Your task to perform on an android device: Clear the cart on newegg. Add logitech g pro to the cart on newegg, then select checkout. Image 0: 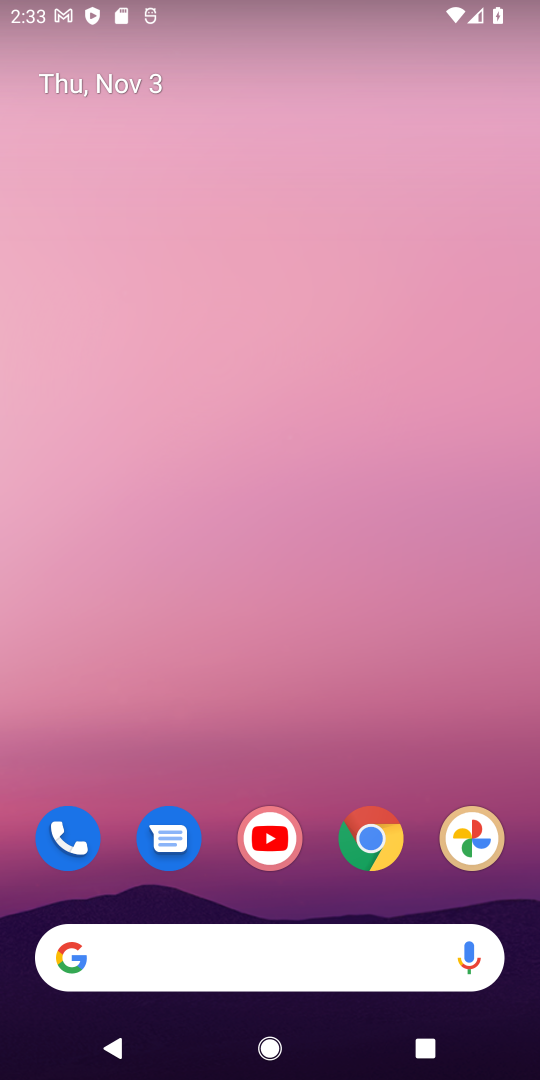
Step 0: drag from (300, 915) to (319, 237)
Your task to perform on an android device: Clear the cart on newegg. Add logitech g pro to the cart on newegg, then select checkout. Image 1: 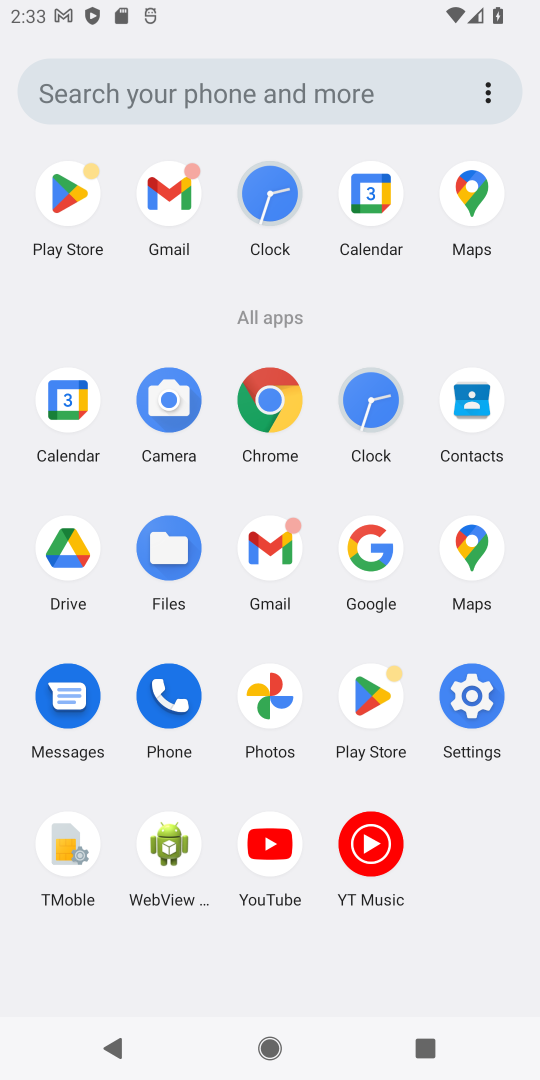
Step 1: click (268, 403)
Your task to perform on an android device: Clear the cart on newegg. Add logitech g pro to the cart on newegg, then select checkout. Image 2: 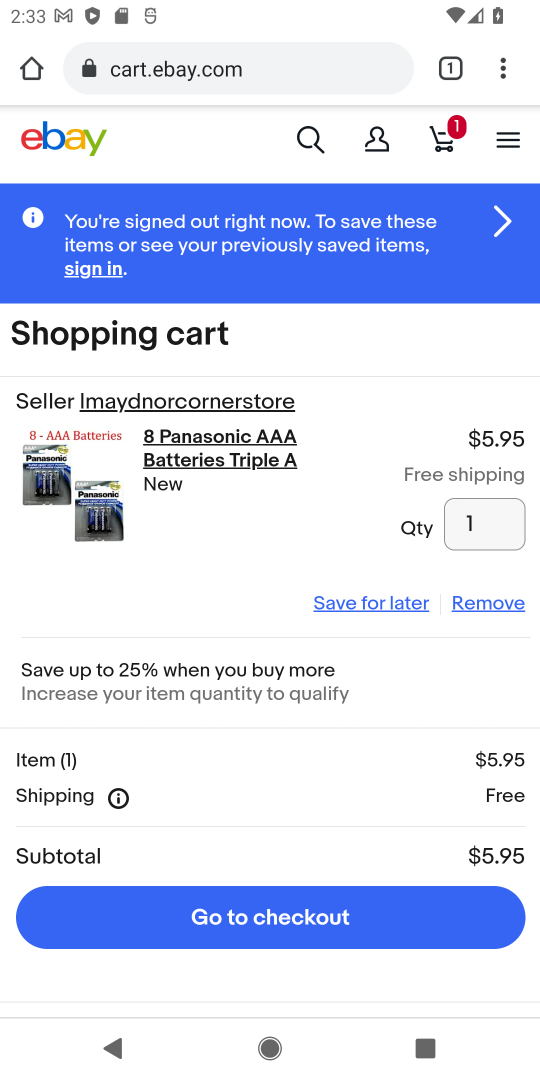
Step 2: click (266, 85)
Your task to perform on an android device: Clear the cart on newegg. Add logitech g pro to the cart on newegg, then select checkout. Image 3: 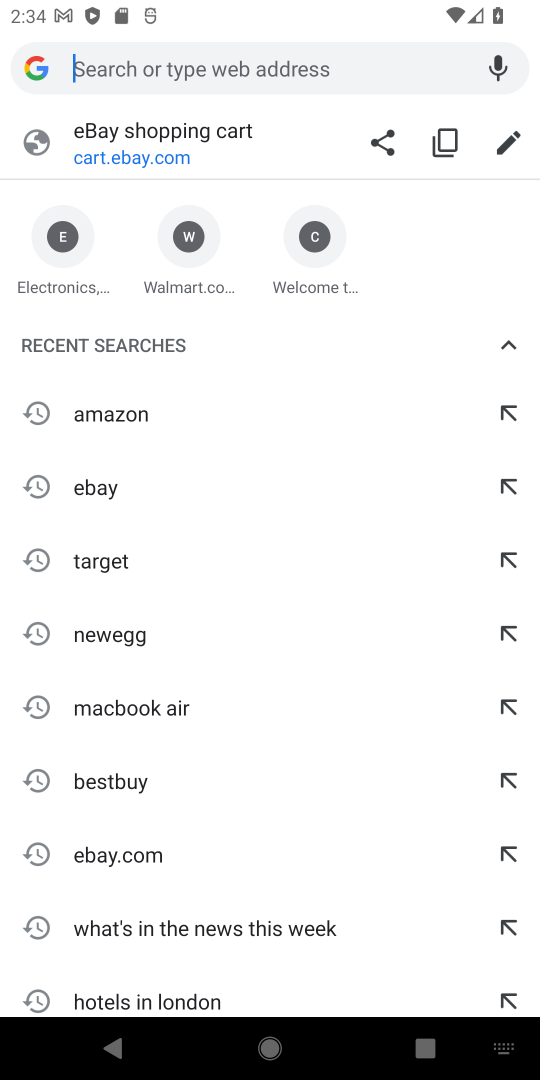
Step 3: type "newegg.com"
Your task to perform on an android device: Clear the cart on newegg. Add logitech g pro to the cart on newegg, then select checkout. Image 4: 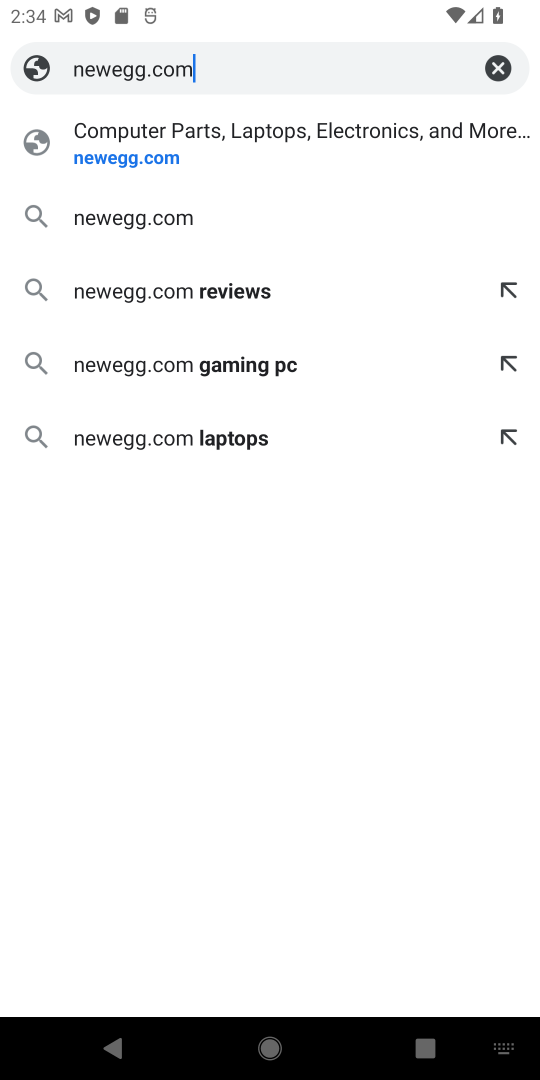
Step 4: press enter
Your task to perform on an android device: Clear the cart on newegg. Add logitech g pro to the cart on newegg, then select checkout. Image 5: 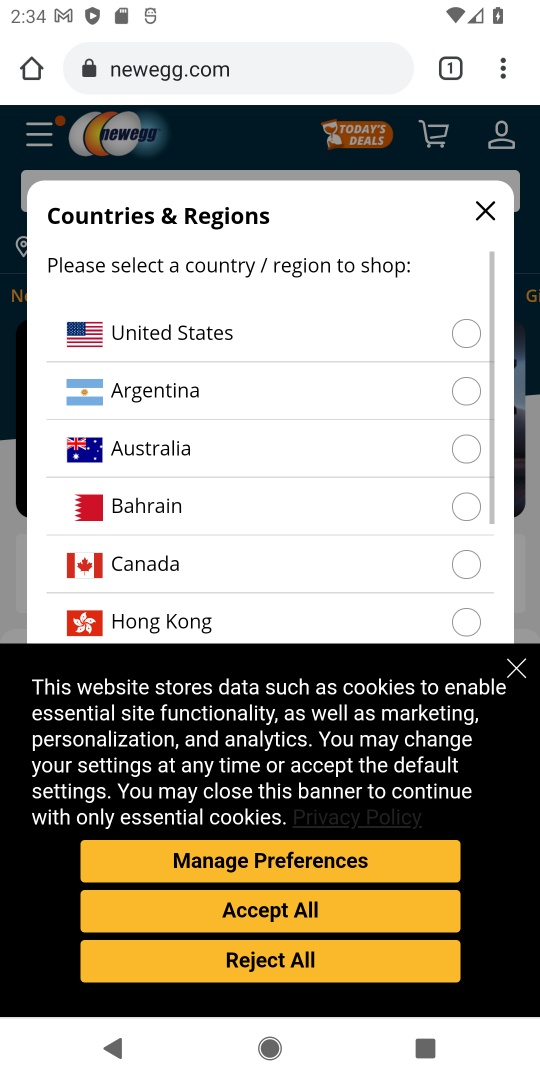
Step 5: click (477, 209)
Your task to perform on an android device: Clear the cart on newegg. Add logitech g pro to the cart on newegg, then select checkout. Image 6: 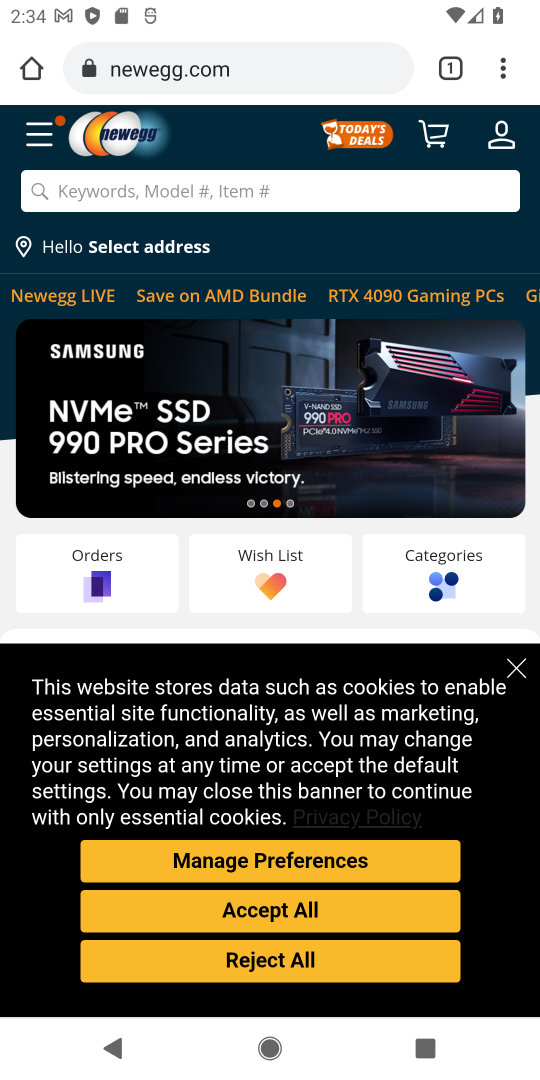
Step 6: click (244, 188)
Your task to perform on an android device: Clear the cart on newegg. Add logitech g pro to the cart on newegg, then select checkout. Image 7: 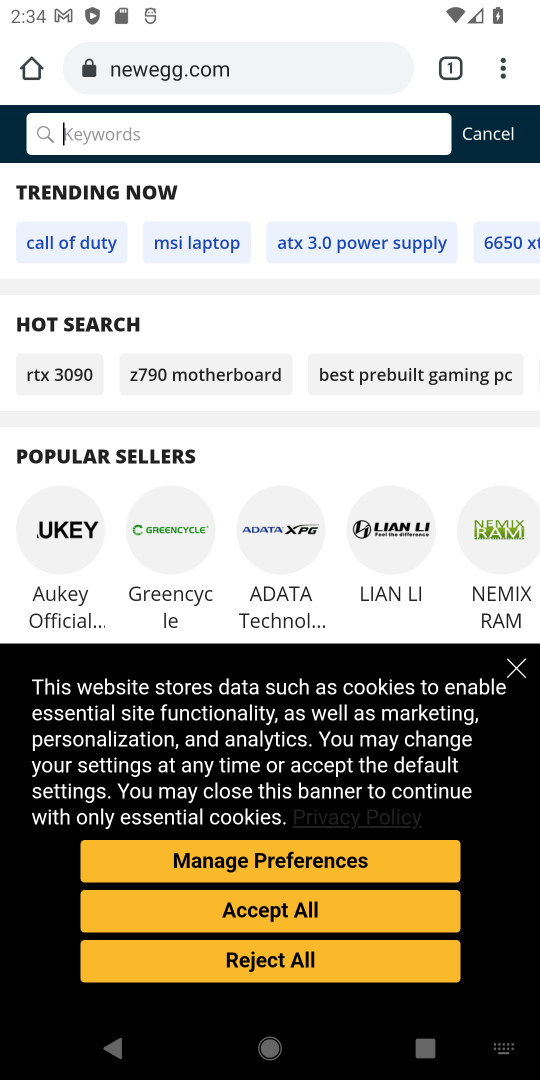
Step 7: click (507, 133)
Your task to perform on an android device: Clear the cart on newegg. Add logitech g pro to the cart on newegg, then select checkout. Image 8: 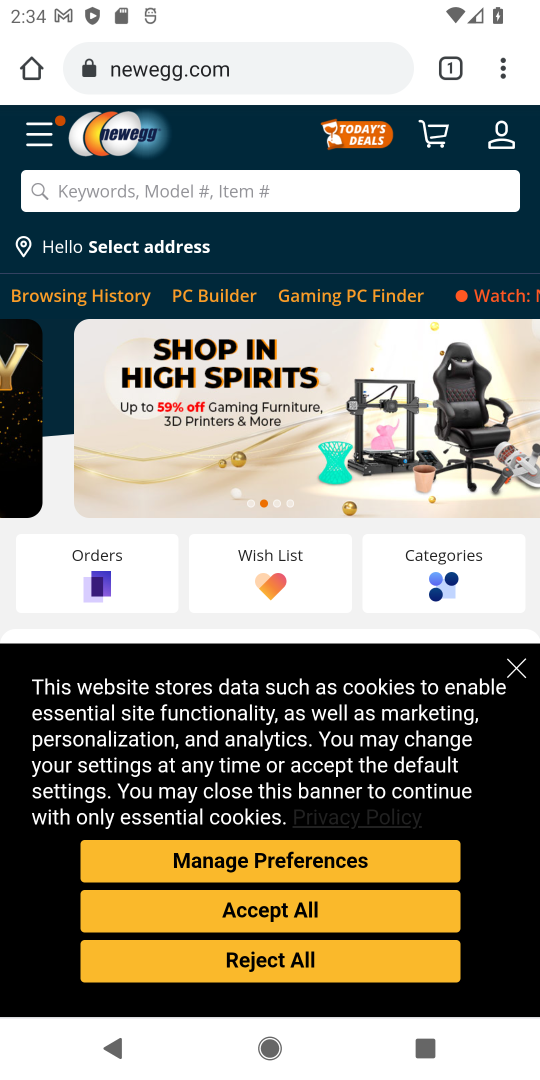
Step 8: click (507, 133)
Your task to perform on an android device: Clear the cart on newegg. Add logitech g pro to the cart on newegg, then select checkout. Image 9: 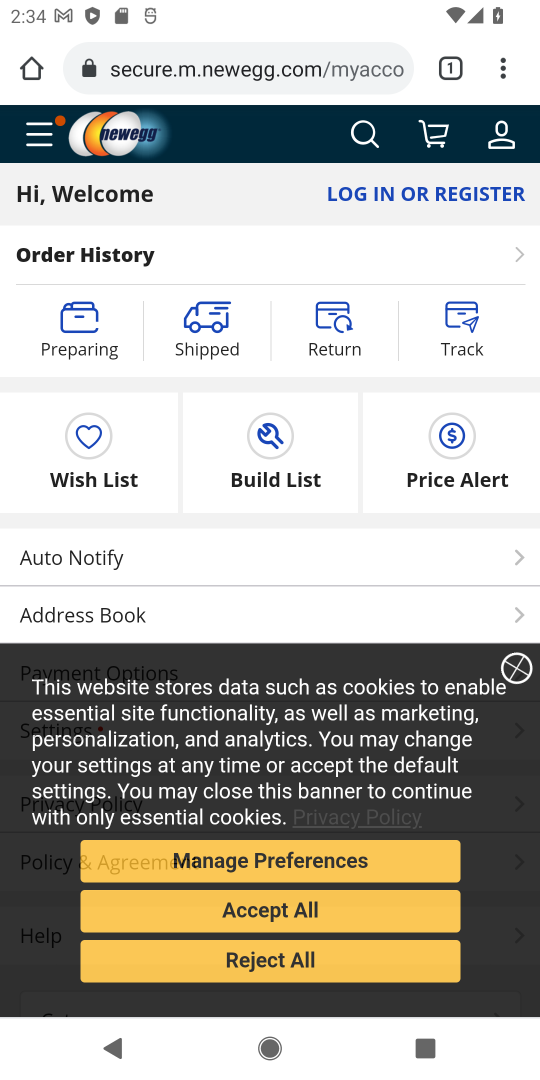
Step 9: click (366, 131)
Your task to perform on an android device: Clear the cart on newegg. Add logitech g pro to the cart on newegg, then select checkout. Image 10: 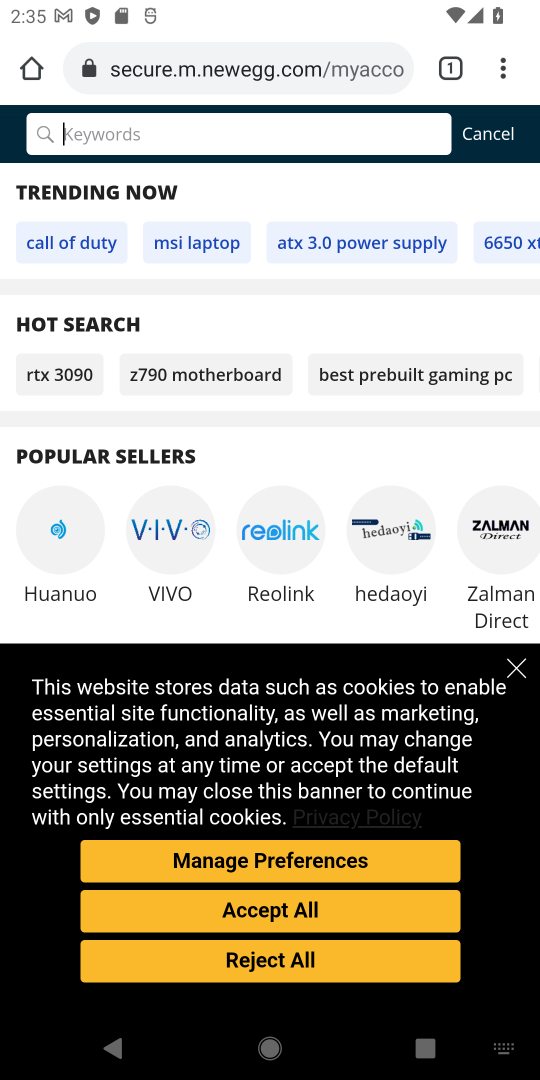
Step 10: type "logitech g pro"
Your task to perform on an android device: Clear the cart on newegg. Add logitech g pro to the cart on newegg, then select checkout. Image 11: 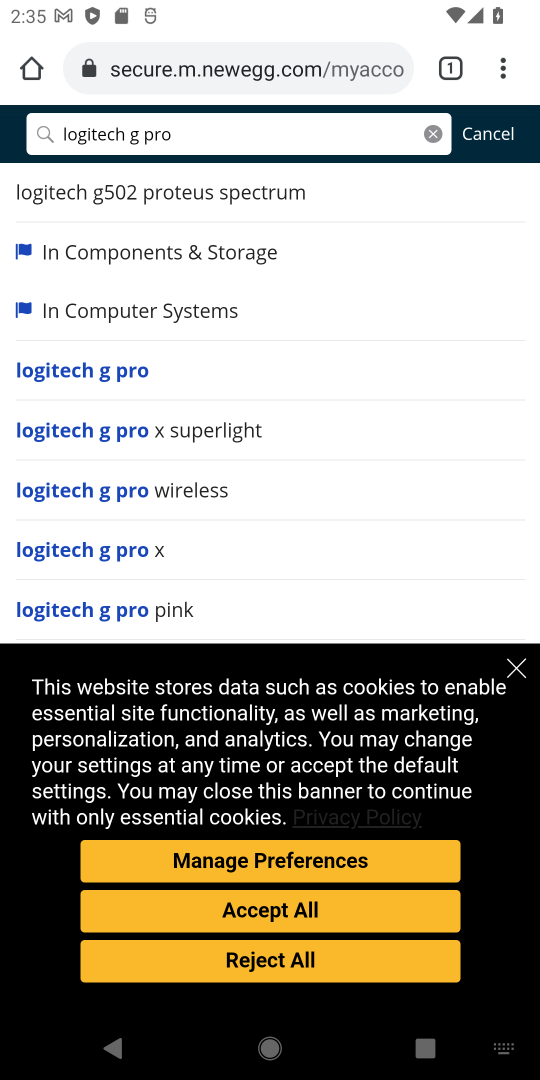
Step 11: press enter
Your task to perform on an android device: Clear the cart on newegg. Add logitech g pro to the cart on newegg, then select checkout. Image 12: 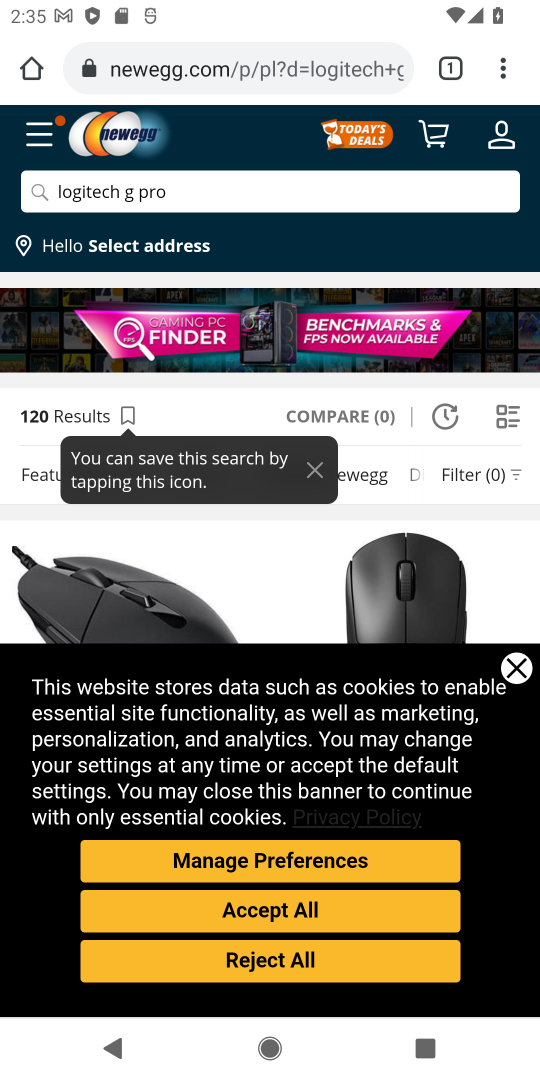
Step 12: click (507, 669)
Your task to perform on an android device: Clear the cart on newegg. Add logitech g pro to the cart on newegg, then select checkout. Image 13: 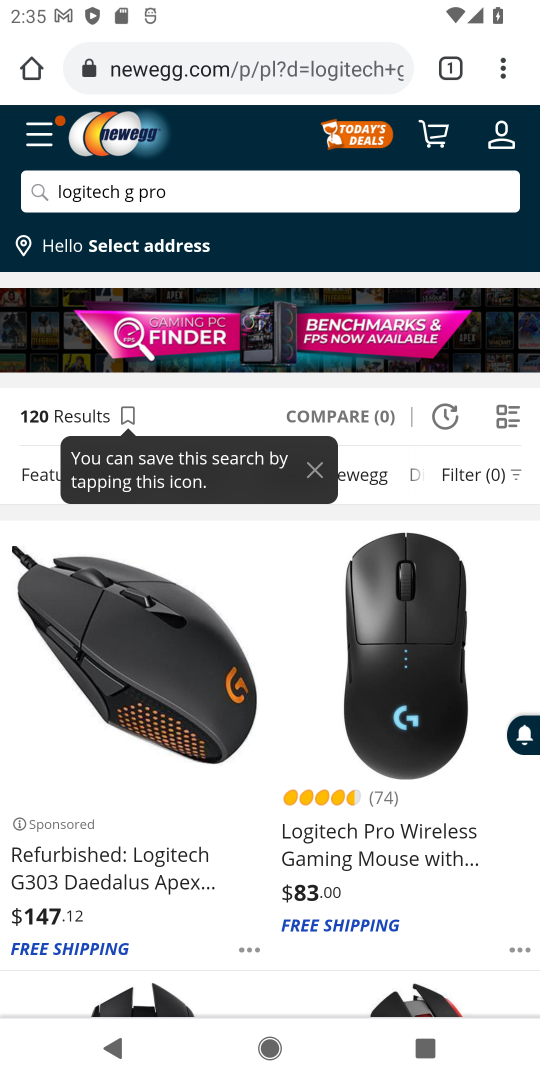
Step 13: click (309, 846)
Your task to perform on an android device: Clear the cart on newegg. Add logitech g pro to the cart on newegg, then select checkout. Image 14: 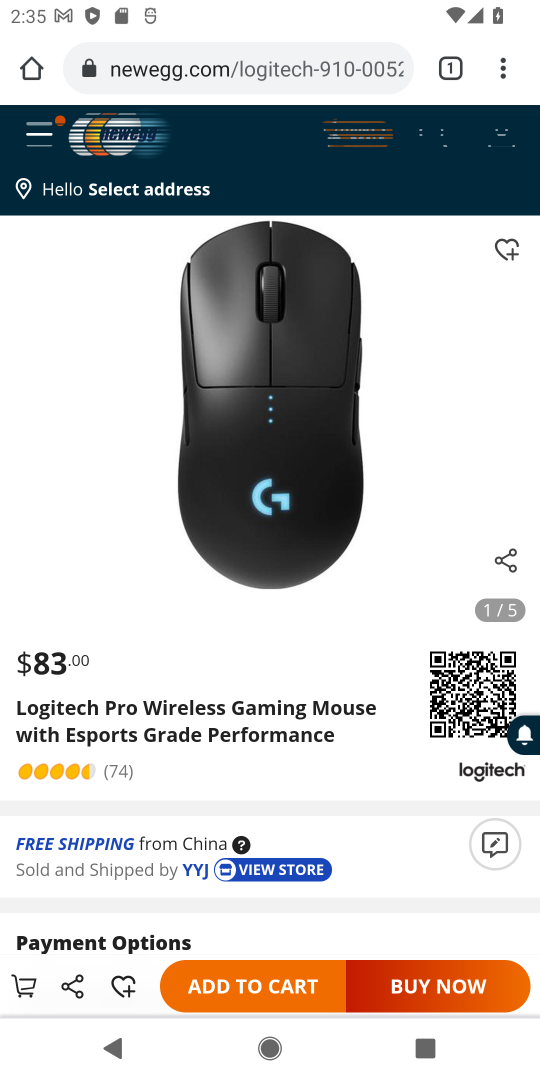
Step 14: drag from (300, 800) to (258, 533)
Your task to perform on an android device: Clear the cart on newegg. Add logitech g pro to the cart on newegg, then select checkout. Image 15: 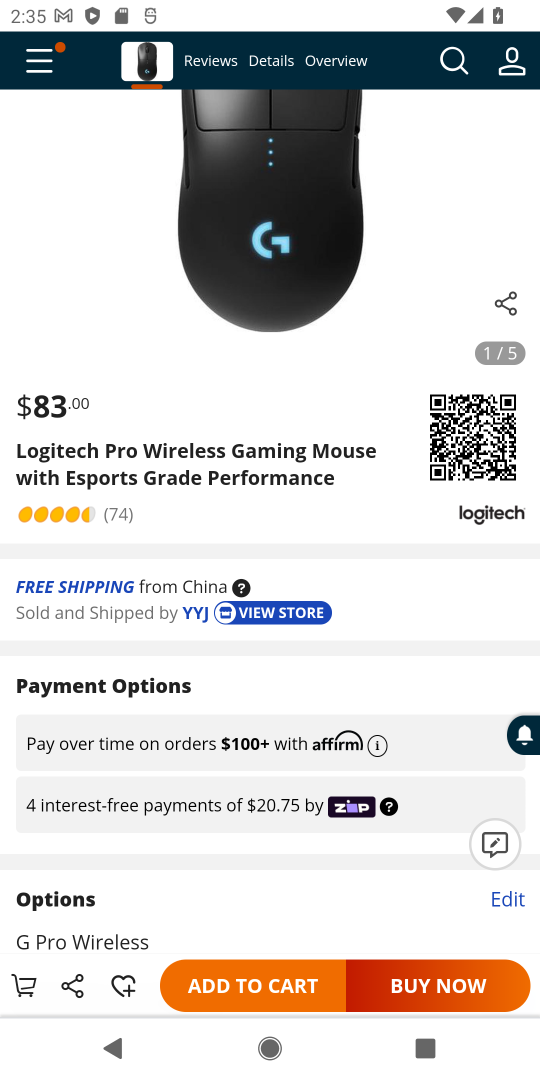
Step 15: click (288, 983)
Your task to perform on an android device: Clear the cart on newegg. Add logitech g pro to the cart on newegg, then select checkout. Image 16: 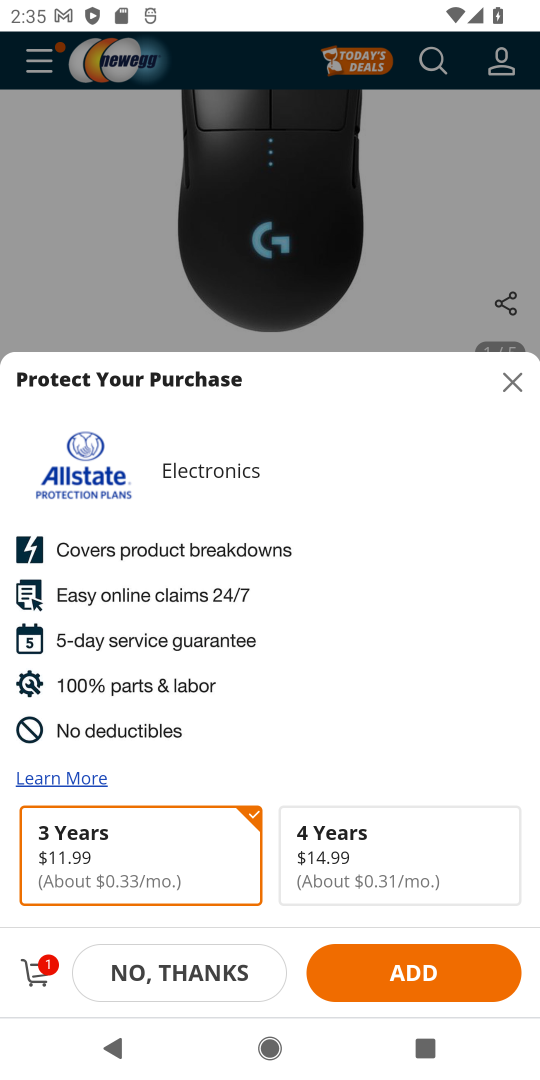
Step 16: click (46, 970)
Your task to perform on an android device: Clear the cart on newegg. Add logitech g pro to the cart on newegg, then select checkout. Image 17: 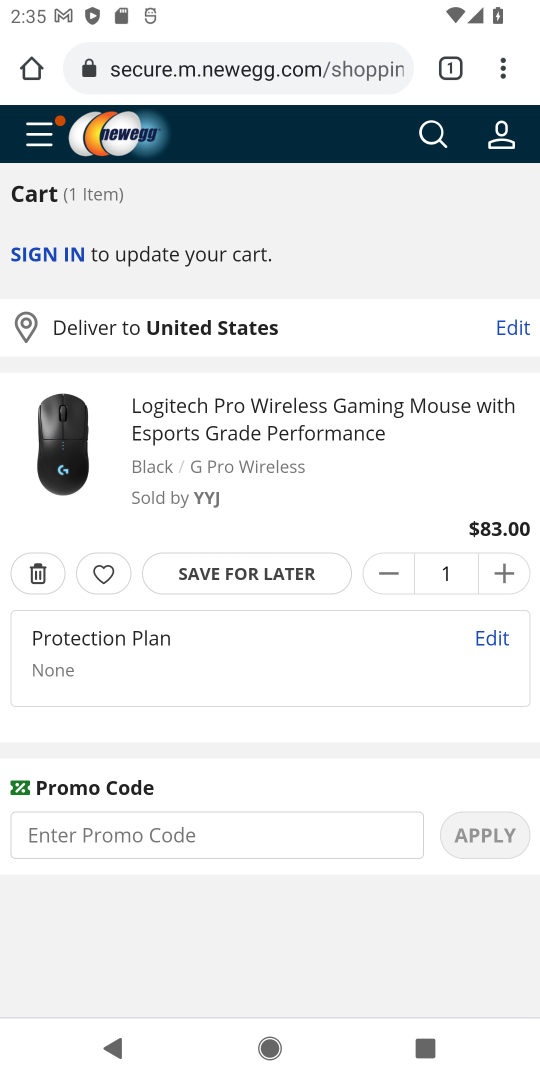
Step 17: click (271, 920)
Your task to perform on an android device: Clear the cart on newegg. Add logitech g pro to the cart on newegg, then select checkout. Image 18: 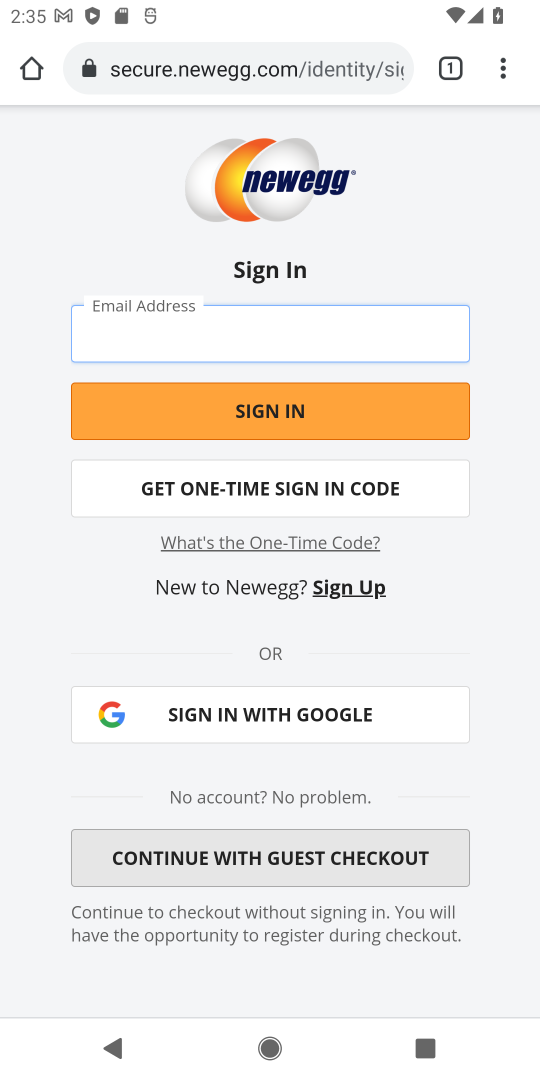
Step 18: task complete